Your task to perform on an android device: Open privacy settings Image 0: 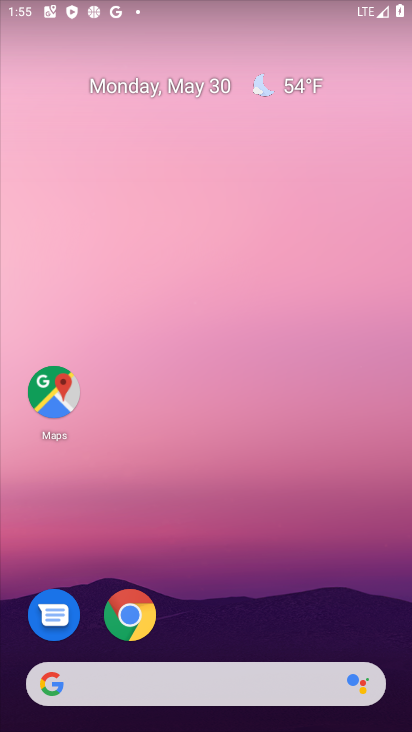
Step 0: drag from (296, 588) to (262, 6)
Your task to perform on an android device: Open privacy settings Image 1: 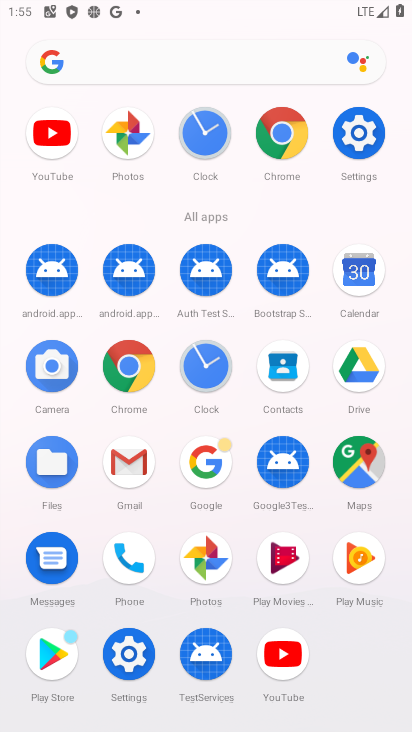
Step 1: click (139, 675)
Your task to perform on an android device: Open privacy settings Image 2: 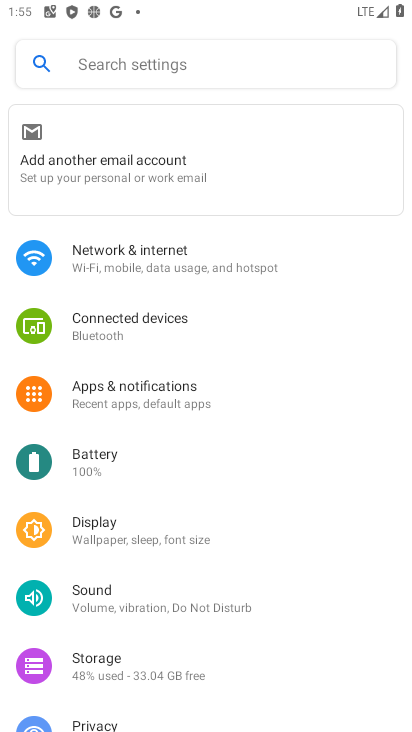
Step 2: drag from (163, 656) to (132, 410)
Your task to perform on an android device: Open privacy settings Image 3: 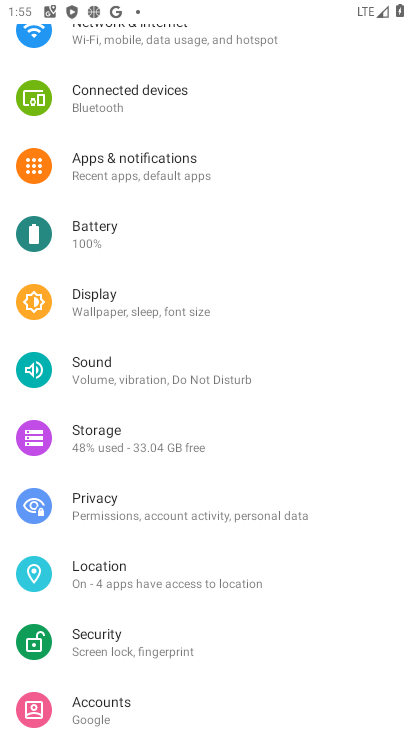
Step 3: click (113, 492)
Your task to perform on an android device: Open privacy settings Image 4: 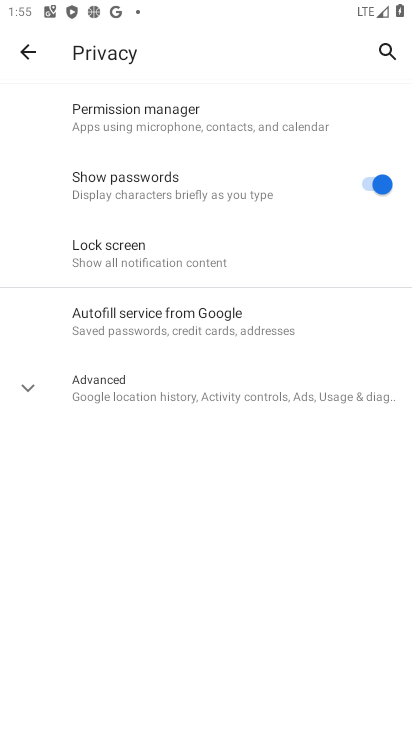
Step 4: task complete